Your task to perform on an android device: see tabs open on other devices in the chrome app Image 0: 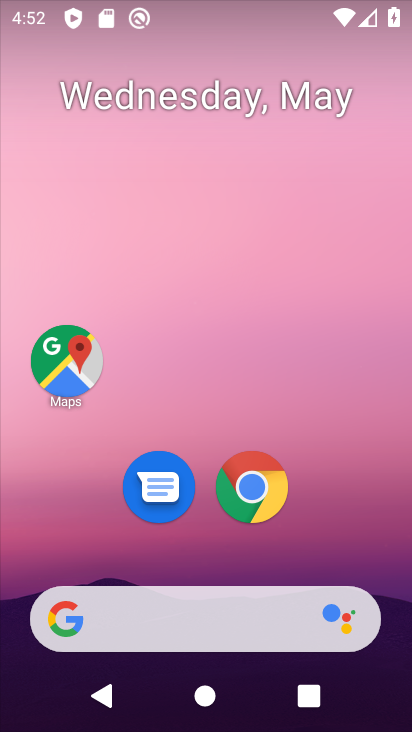
Step 0: click (275, 497)
Your task to perform on an android device: see tabs open on other devices in the chrome app Image 1: 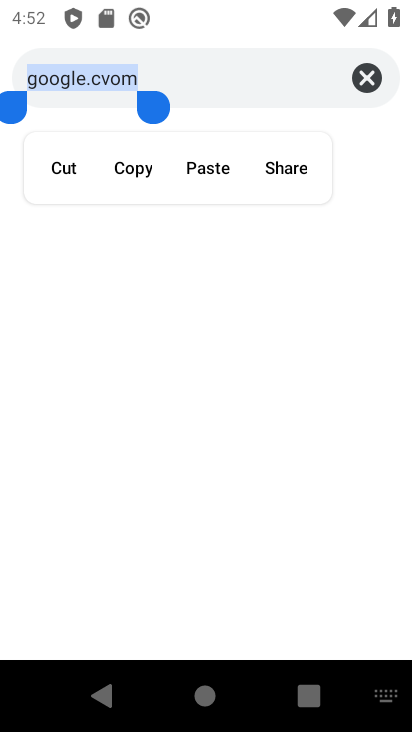
Step 1: click (366, 75)
Your task to perform on an android device: see tabs open on other devices in the chrome app Image 2: 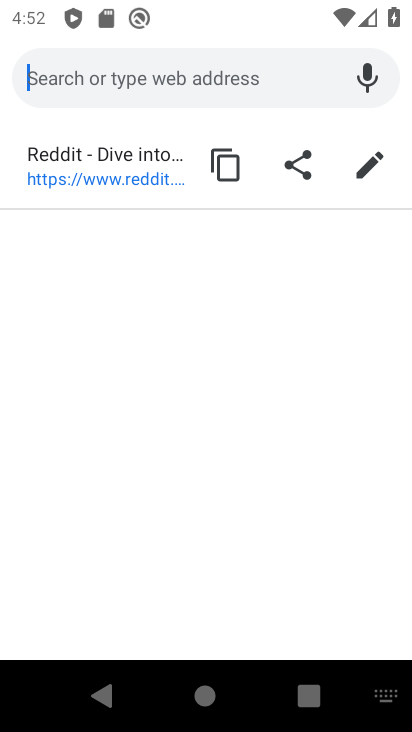
Step 2: click (109, 697)
Your task to perform on an android device: see tabs open on other devices in the chrome app Image 3: 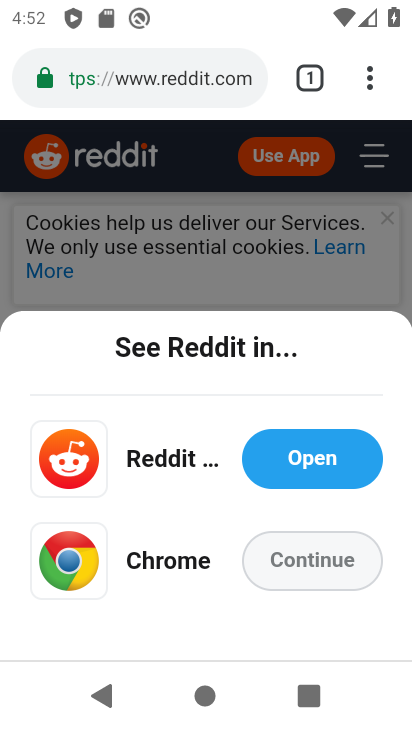
Step 3: click (178, 582)
Your task to perform on an android device: see tabs open on other devices in the chrome app Image 4: 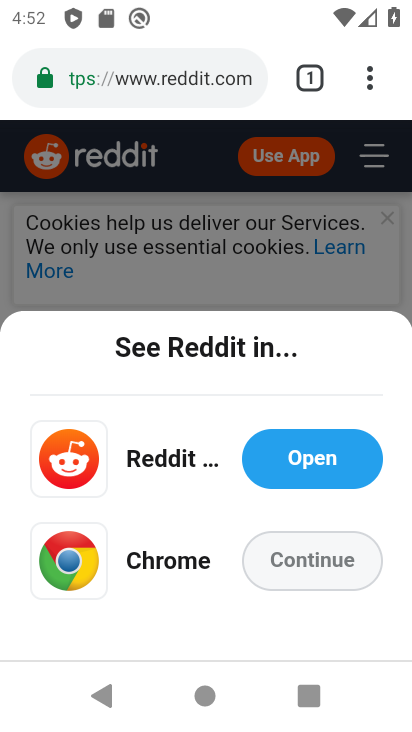
Step 4: click (329, 575)
Your task to perform on an android device: see tabs open on other devices in the chrome app Image 5: 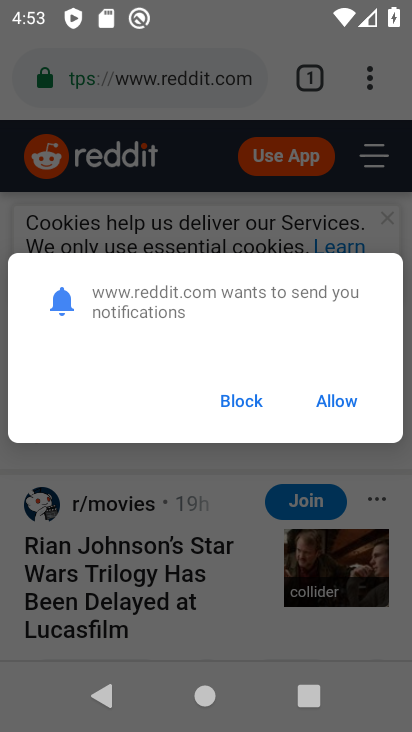
Step 5: click (252, 407)
Your task to perform on an android device: see tabs open on other devices in the chrome app Image 6: 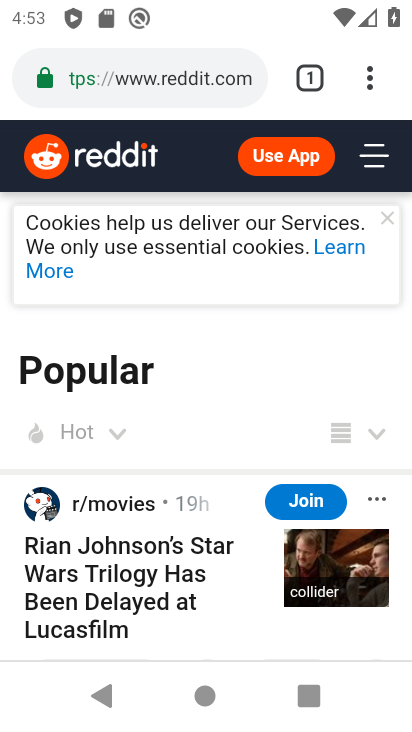
Step 6: click (373, 64)
Your task to perform on an android device: see tabs open on other devices in the chrome app Image 7: 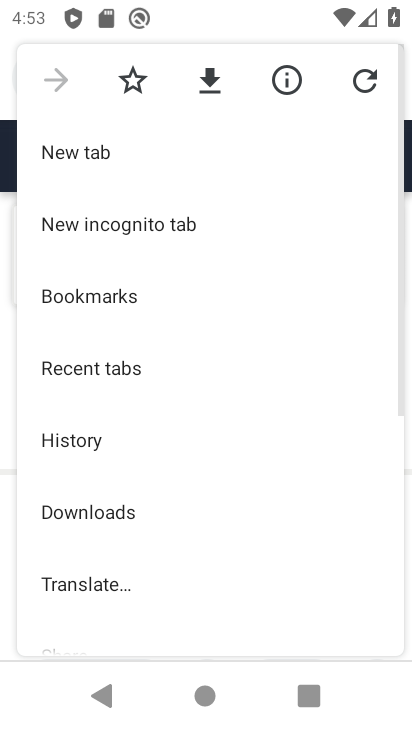
Step 7: click (178, 367)
Your task to perform on an android device: see tabs open on other devices in the chrome app Image 8: 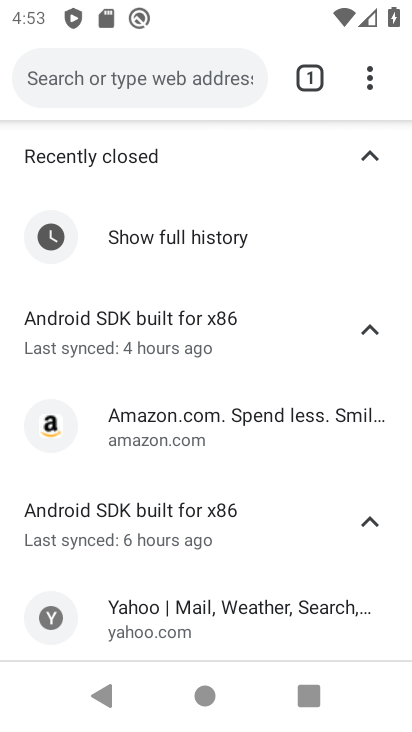
Step 8: task complete